Your task to perform on an android device: Open the phone app and click the voicemail tab. Image 0: 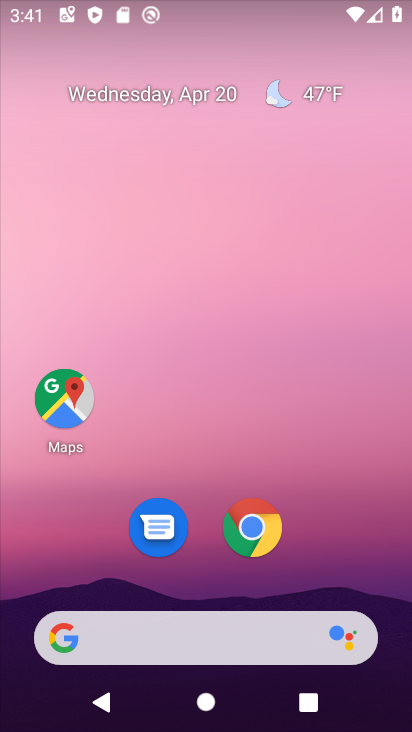
Step 0: drag from (346, 583) to (370, 39)
Your task to perform on an android device: Open the phone app and click the voicemail tab. Image 1: 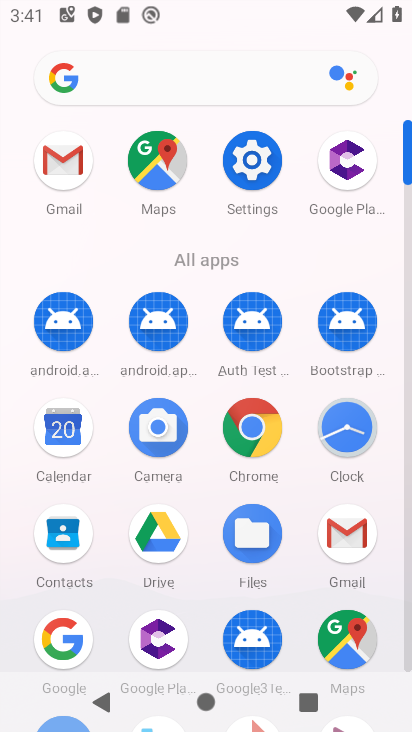
Step 1: drag from (298, 637) to (340, 389)
Your task to perform on an android device: Open the phone app and click the voicemail tab. Image 2: 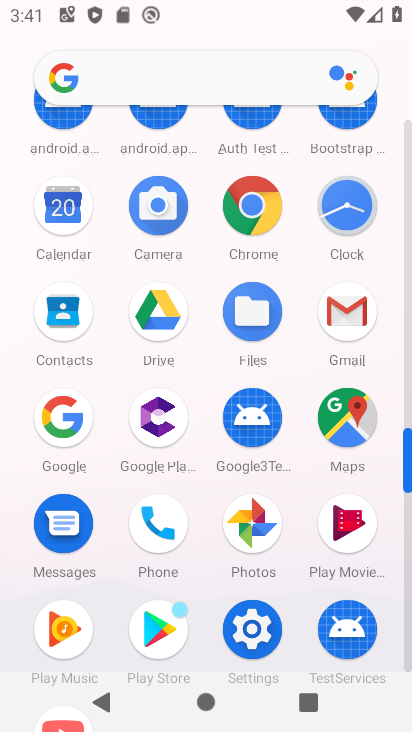
Step 2: click (163, 530)
Your task to perform on an android device: Open the phone app and click the voicemail tab. Image 3: 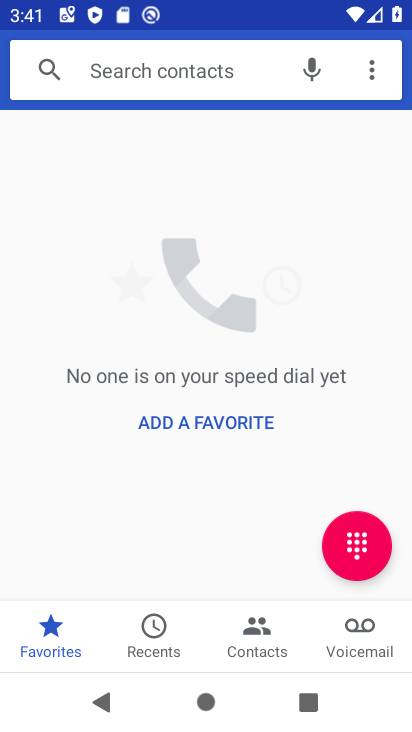
Step 3: click (367, 633)
Your task to perform on an android device: Open the phone app and click the voicemail tab. Image 4: 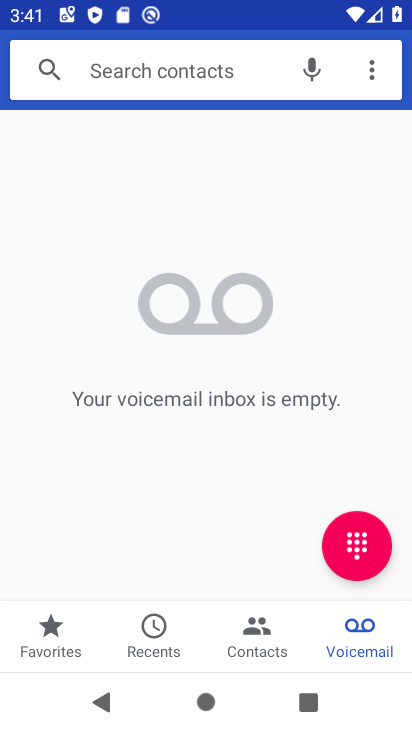
Step 4: task complete